Your task to perform on an android device: turn on location history Image 0: 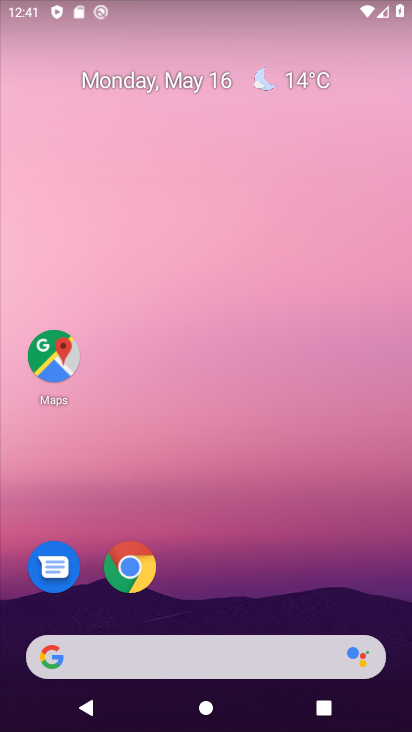
Step 0: drag from (229, 563) to (122, 130)
Your task to perform on an android device: turn on location history Image 1: 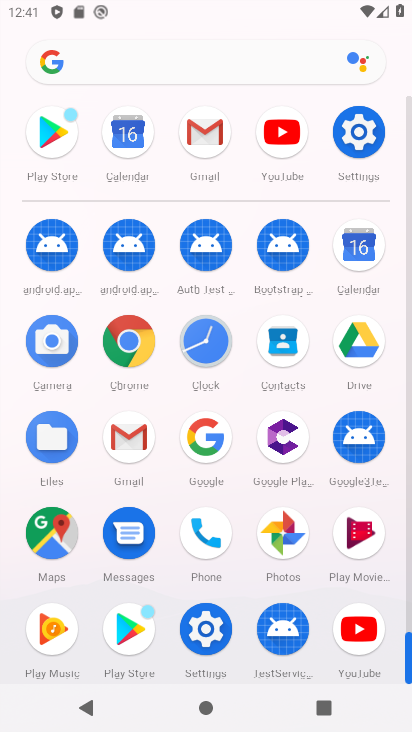
Step 1: click (359, 131)
Your task to perform on an android device: turn on location history Image 2: 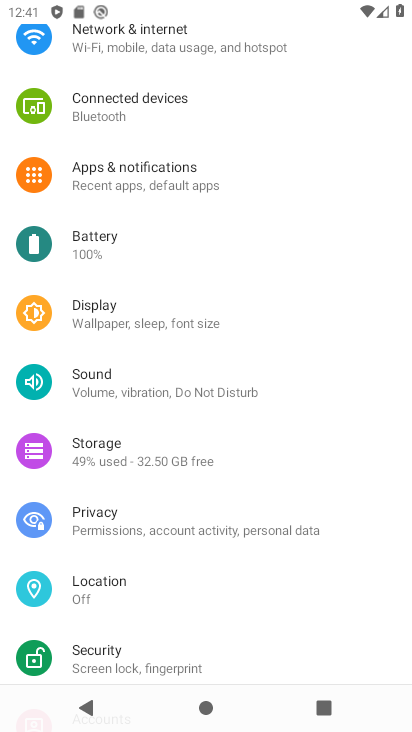
Step 2: click (107, 581)
Your task to perform on an android device: turn on location history Image 3: 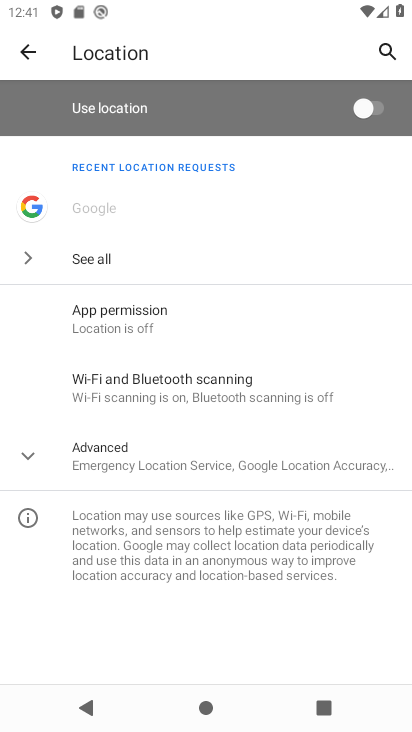
Step 3: click (36, 453)
Your task to perform on an android device: turn on location history Image 4: 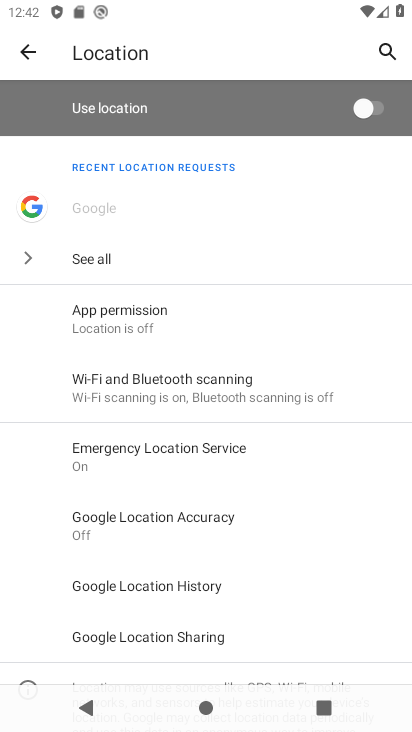
Step 4: drag from (292, 556) to (219, 326)
Your task to perform on an android device: turn on location history Image 5: 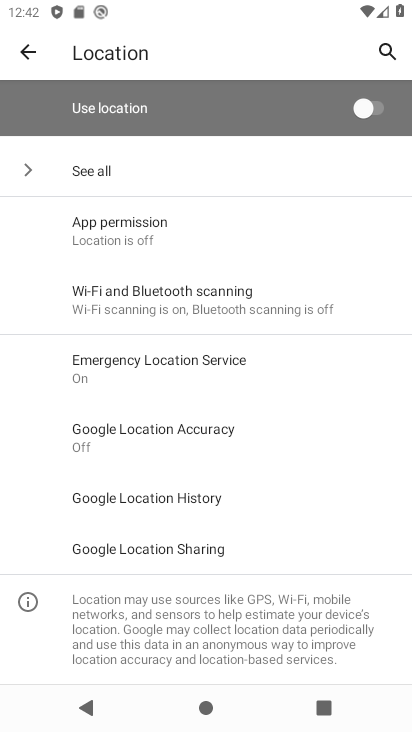
Step 5: click (161, 495)
Your task to perform on an android device: turn on location history Image 6: 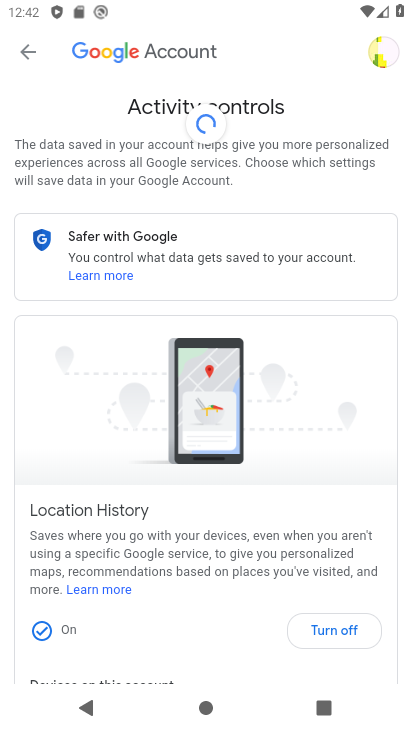
Step 6: task complete